Your task to perform on an android device: Go to ESPN.com Image 0: 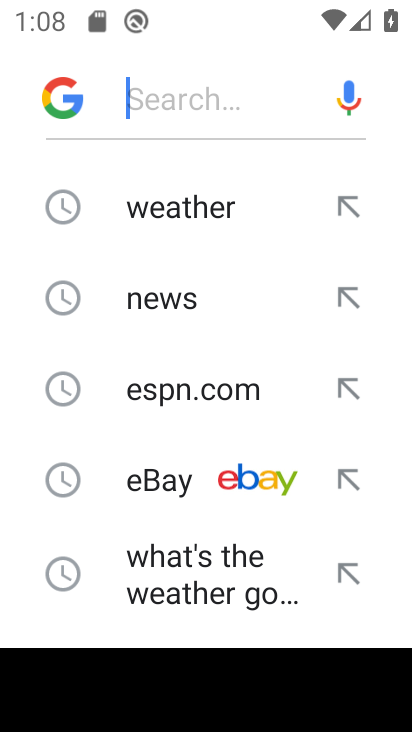
Step 0: type "ESPN.com"
Your task to perform on an android device: Go to ESPN.com Image 1: 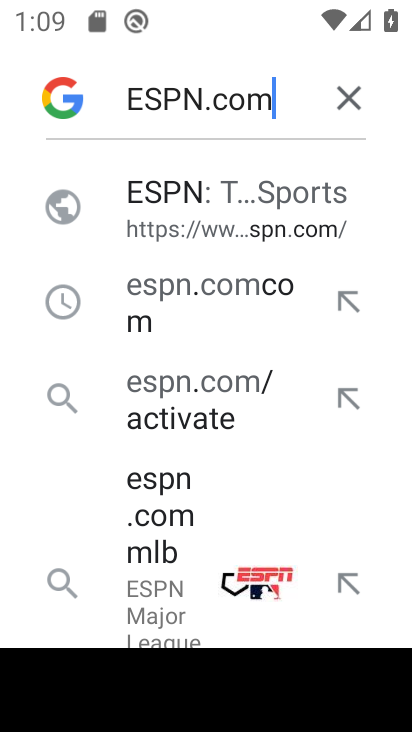
Step 1: click (156, 183)
Your task to perform on an android device: Go to ESPN.com Image 2: 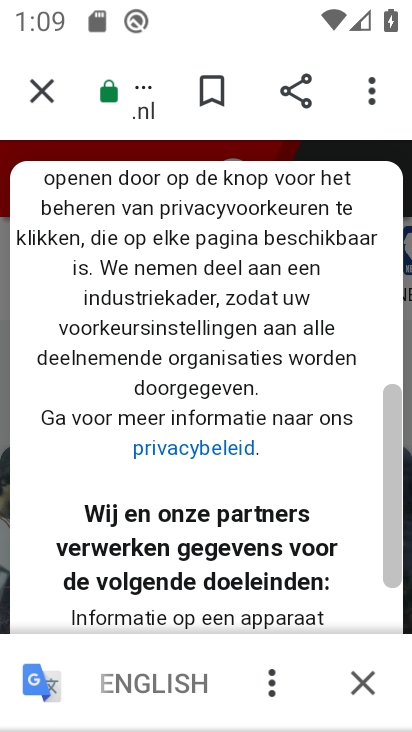
Step 2: task complete